Your task to perform on an android device: Search for flights from Helsinki to Tokyo Image 0: 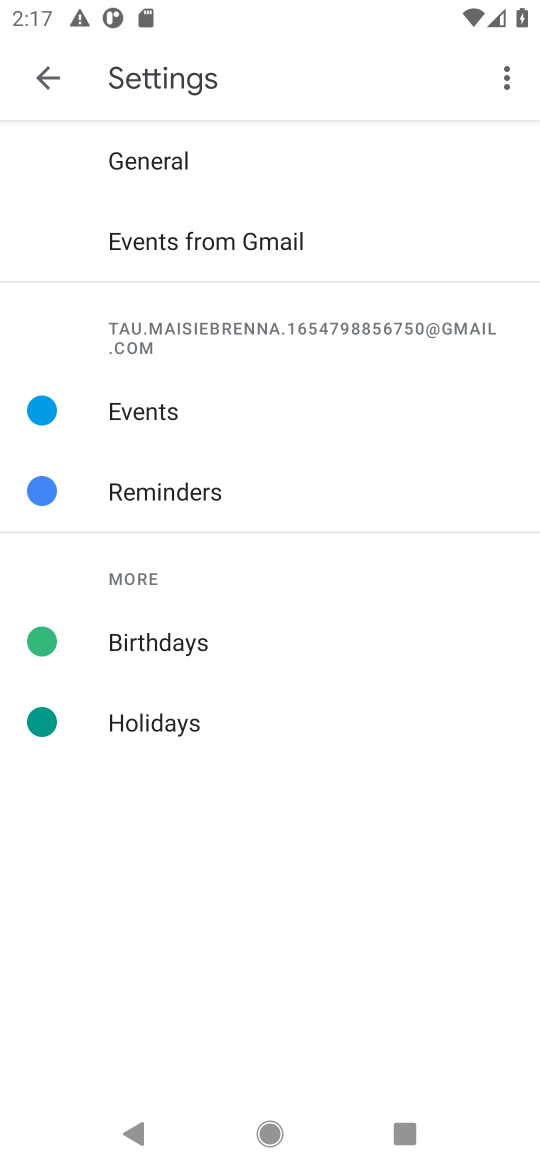
Step 0: press home button
Your task to perform on an android device: Search for flights from Helsinki to Tokyo Image 1: 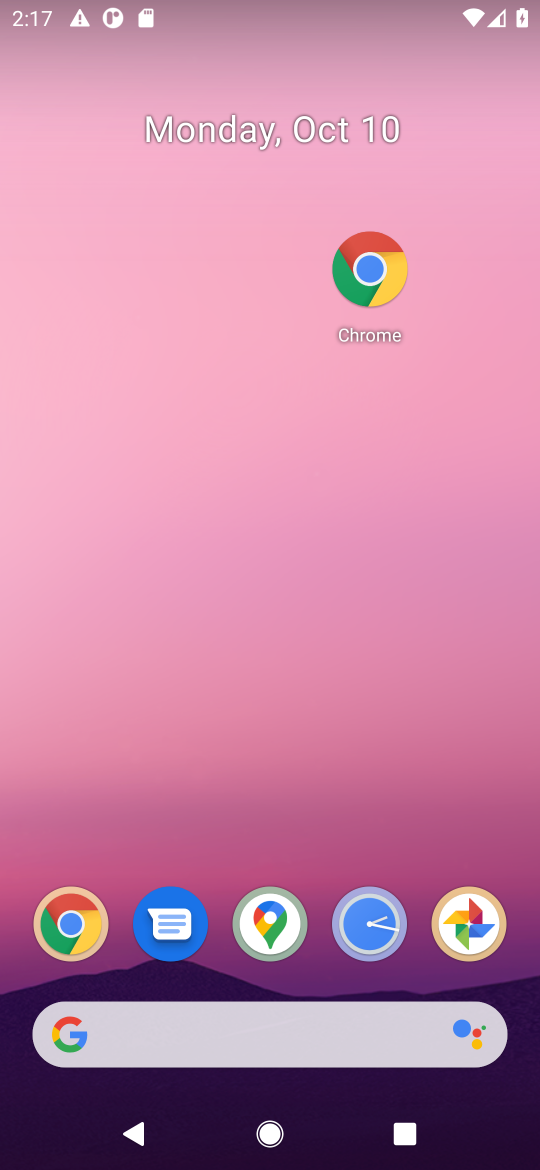
Step 1: drag from (325, 833) to (298, 40)
Your task to perform on an android device: Search for flights from Helsinki to Tokyo Image 2: 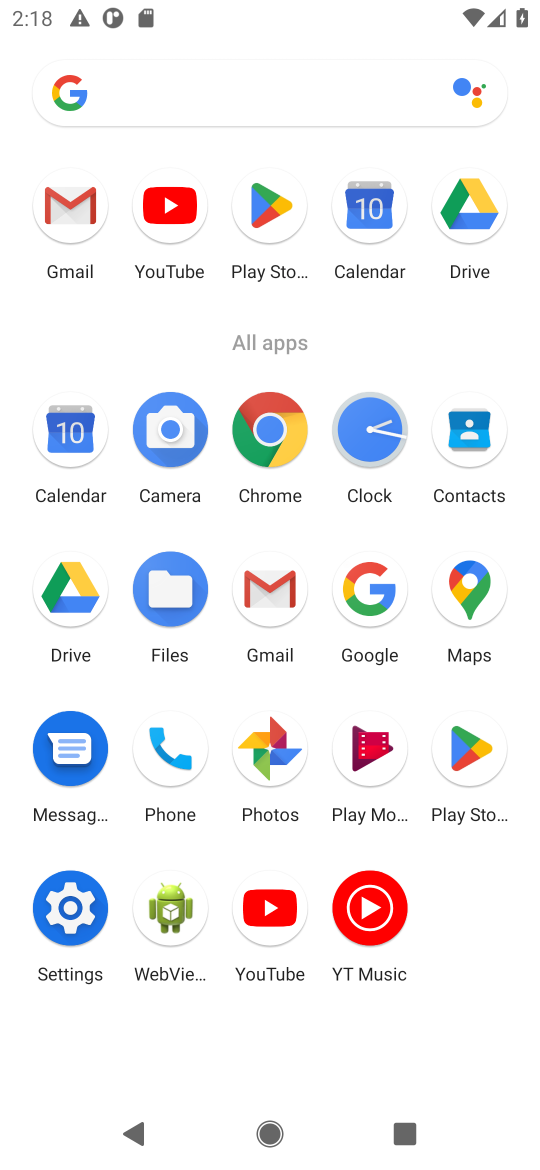
Step 2: click (269, 423)
Your task to perform on an android device: Search for flights from Helsinki to Tokyo Image 3: 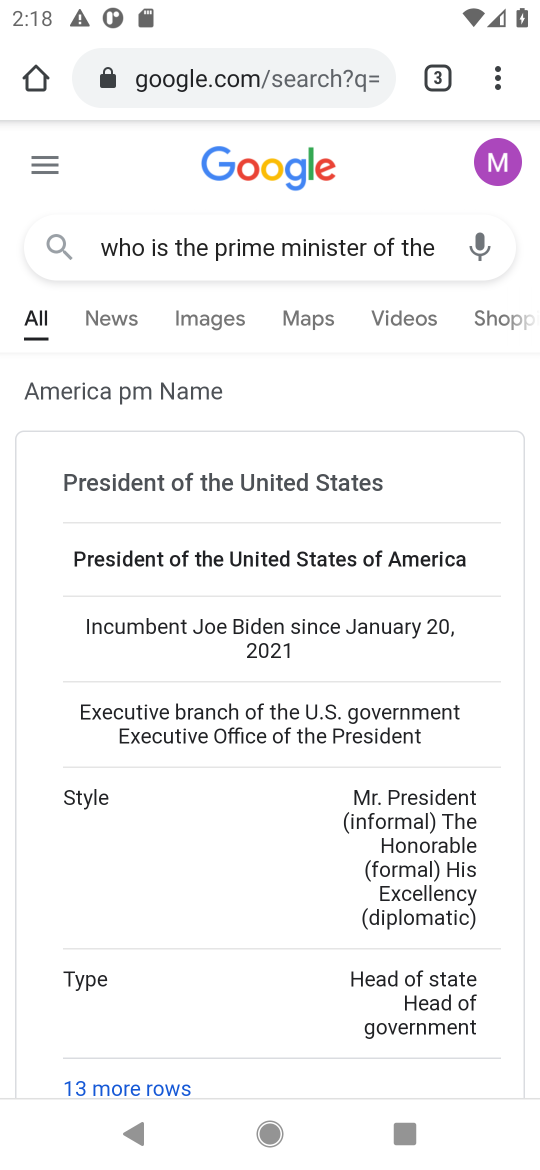
Step 3: click (207, 76)
Your task to perform on an android device: Search for flights from Helsinki to Tokyo Image 4: 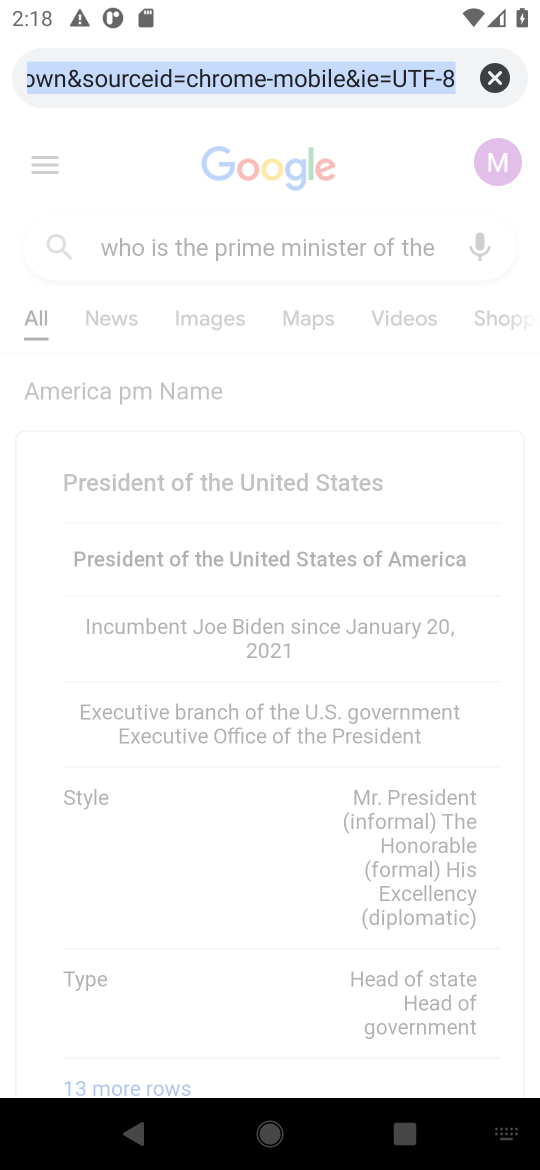
Step 4: click (500, 81)
Your task to perform on an android device: Search for flights from Helsinki to Tokyo Image 5: 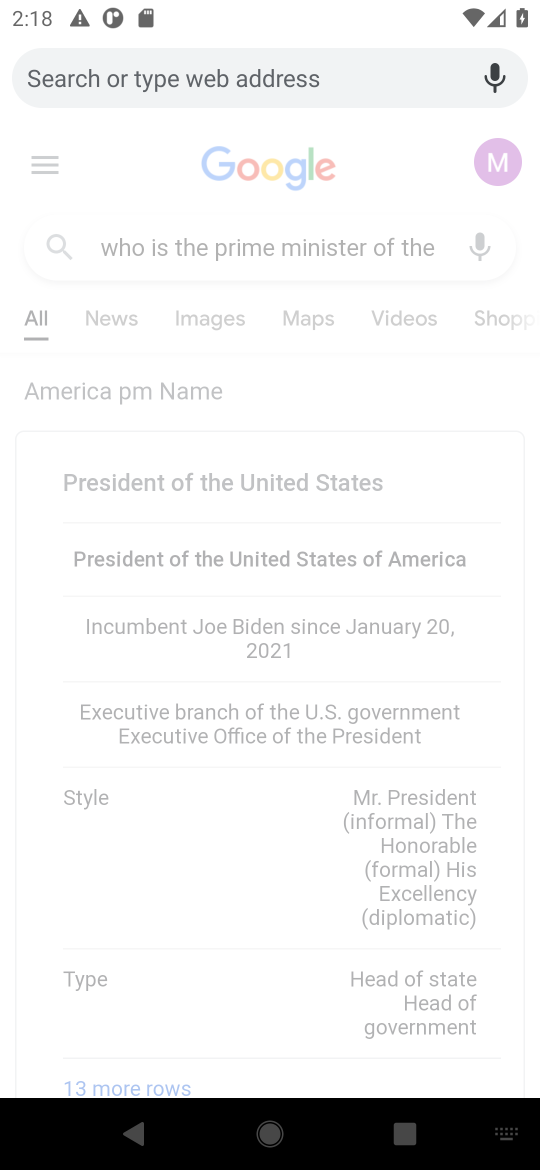
Step 5: type "Search for flights from Helsinki to Tokyo"
Your task to perform on an android device: Search for flights from Helsinki to Tokyo Image 6: 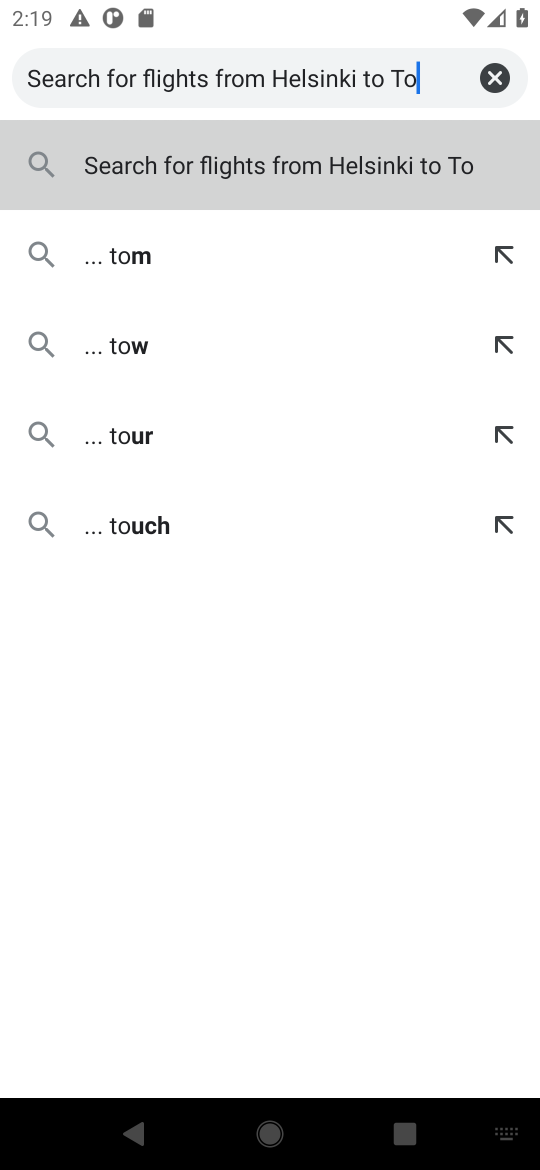
Step 6: click (360, 157)
Your task to perform on an android device: Search for flights from Helsinki to Tokyo Image 7: 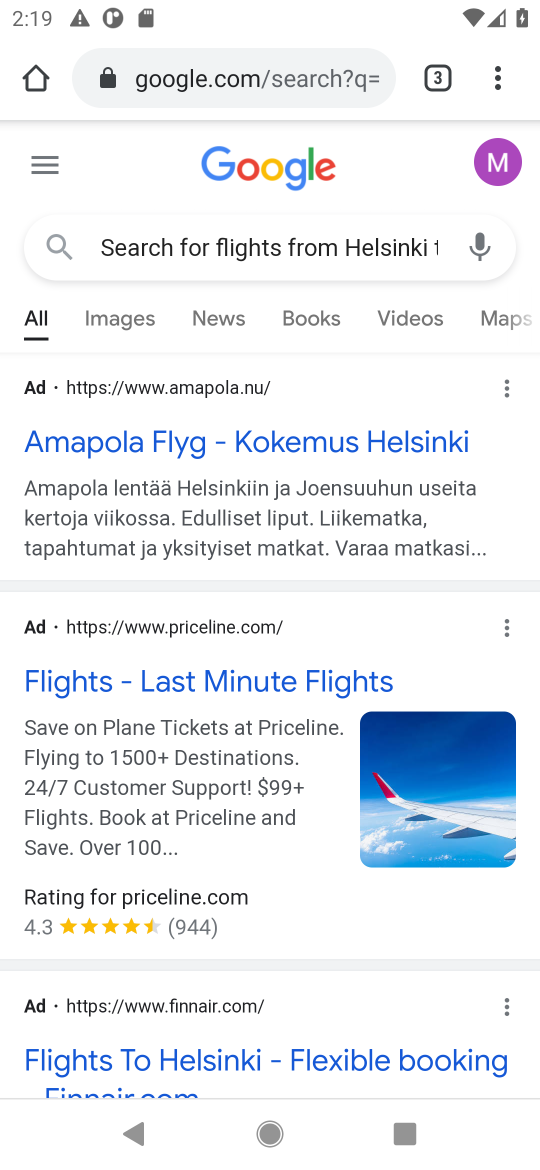
Step 7: task complete